Your task to perform on an android device: clear history in the chrome app Image 0: 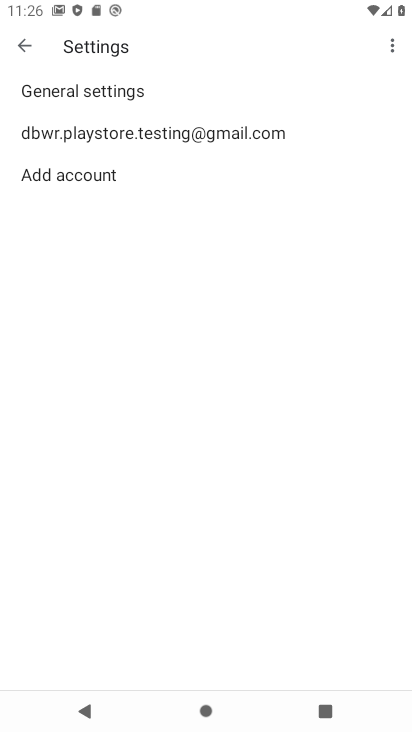
Step 0: press home button
Your task to perform on an android device: clear history in the chrome app Image 1: 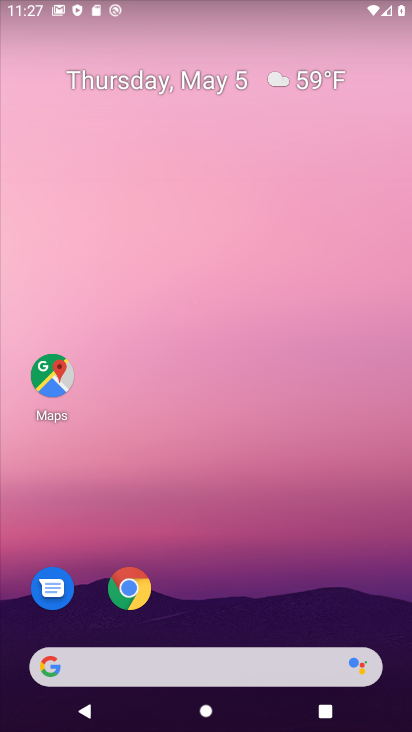
Step 1: drag from (191, 599) to (371, 52)
Your task to perform on an android device: clear history in the chrome app Image 2: 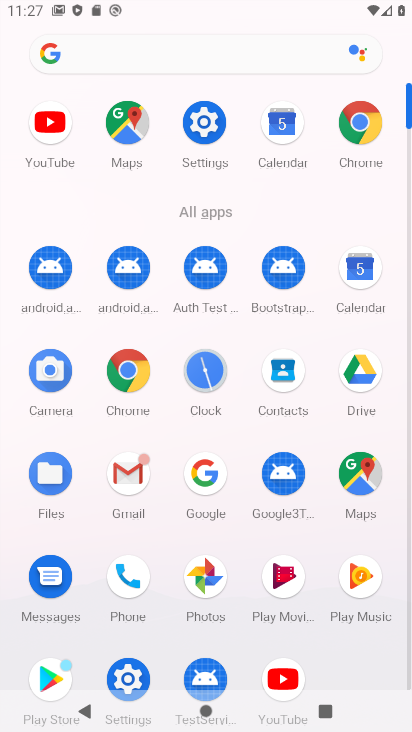
Step 2: click (363, 132)
Your task to perform on an android device: clear history in the chrome app Image 3: 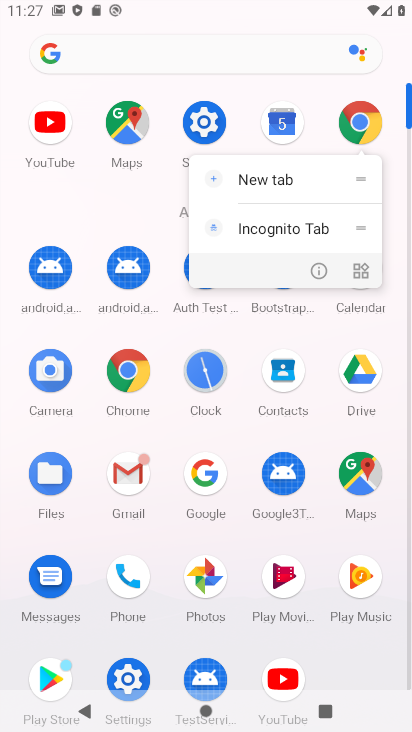
Step 3: click (362, 125)
Your task to perform on an android device: clear history in the chrome app Image 4: 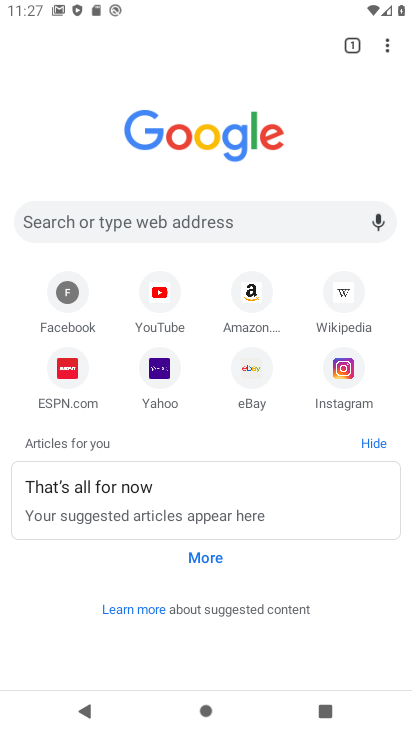
Step 4: drag from (387, 44) to (225, 255)
Your task to perform on an android device: clear history in the chrome app Image 5: 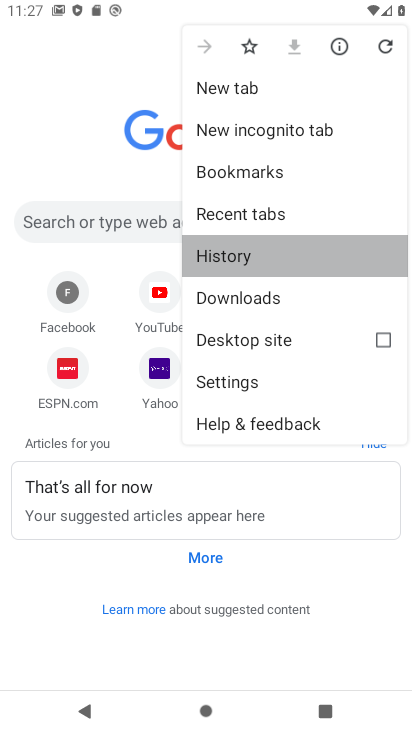
Step 5: click (225, 255)
Your task to perform on an android device: clear history in the chrome app Image 6: 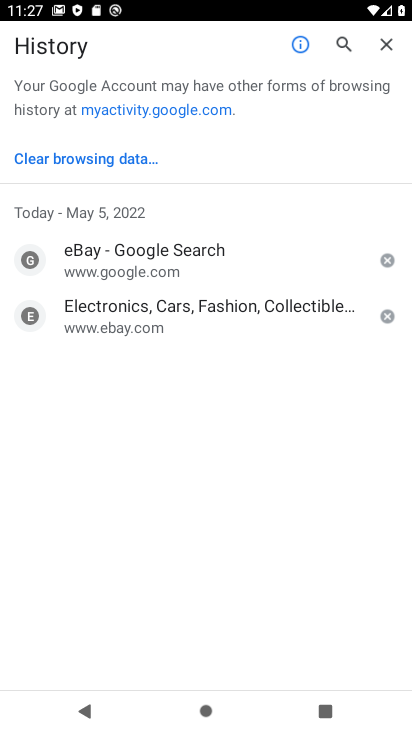
Step 6: click (100, 161)
Your task to perform on an android device: clear history in the chrome app Image 7: 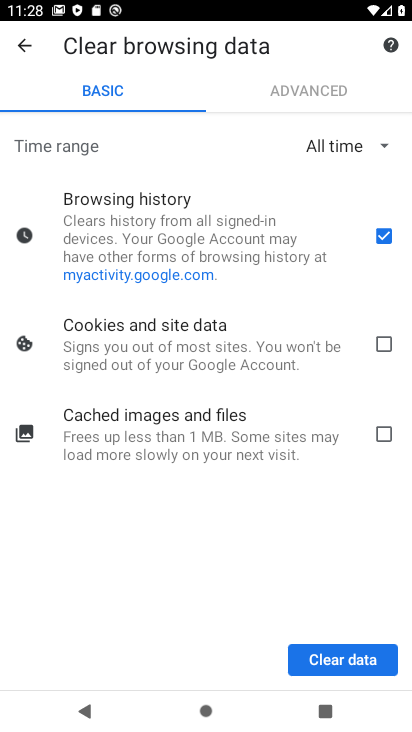
Step 7: click (378, 343)
Your task to perform on an android device: clear history in the chrome app Image 8: 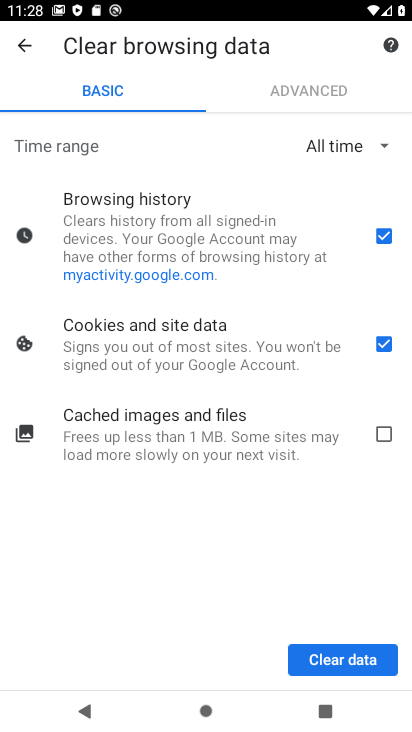
Step 8: click (381, 434)
Your task to perform on an android device: clear history in the chrome app Image 9: 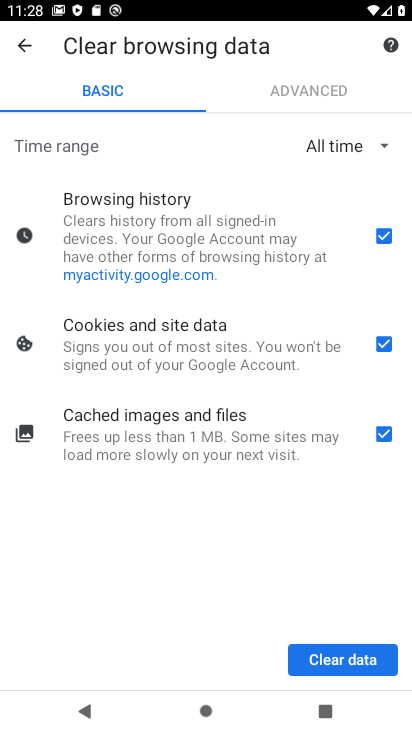
Step 9: click (337, 661)
Your task to perform on an android device: clear history in the chrome app Image 10: 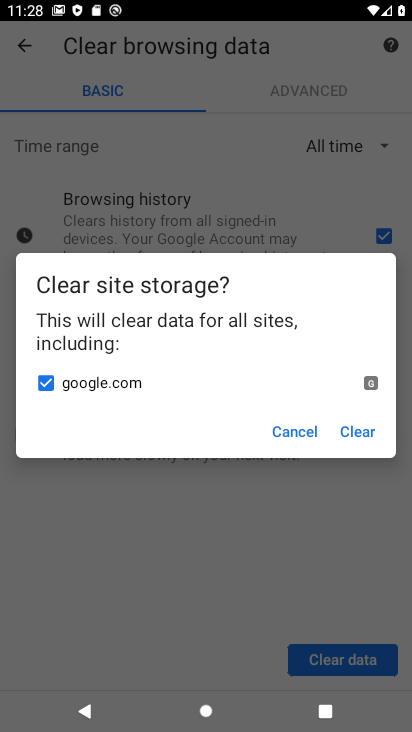
Step 10: click (358, 425)
Your task to perform on an android device: clear history in the chrome app Image 11: 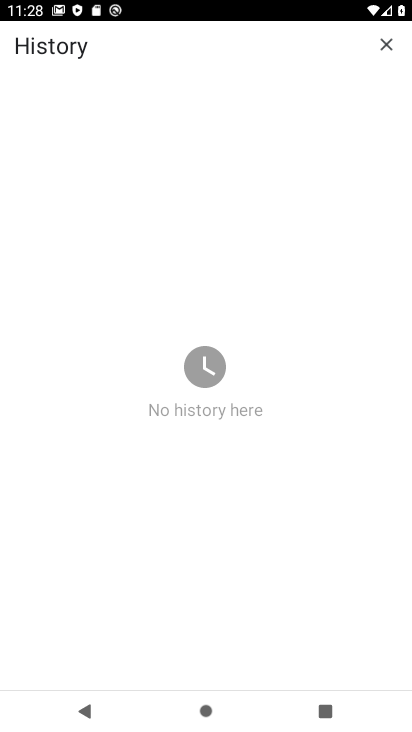
Step 11: task complete